Your task to perform on an android device: turn on airplane mode Image 0: 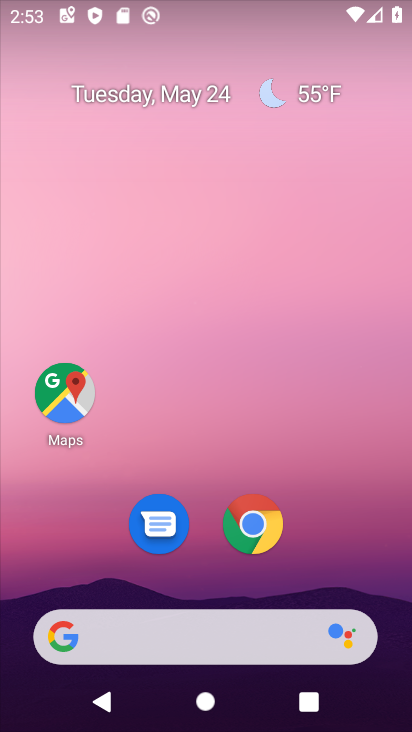
Step 0: drag from (329, 471) to (343, 0)
Your task to perform on an android device: turn on airplane mode Image 1: 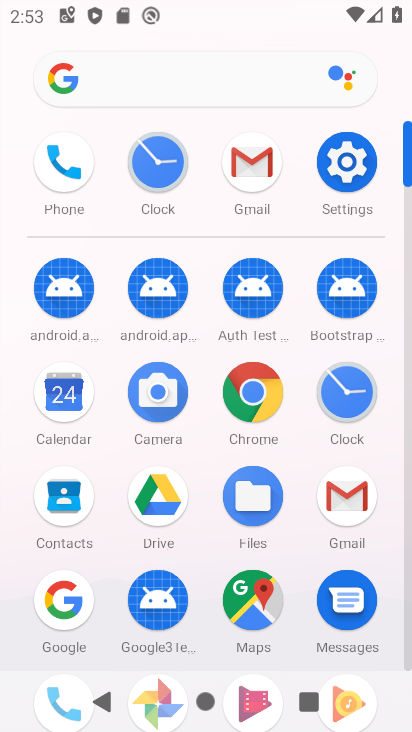
Step 1: drag from (199, 473) to (237, 173)
Your task to perform on an android device: turn on airplane mode Image 2: 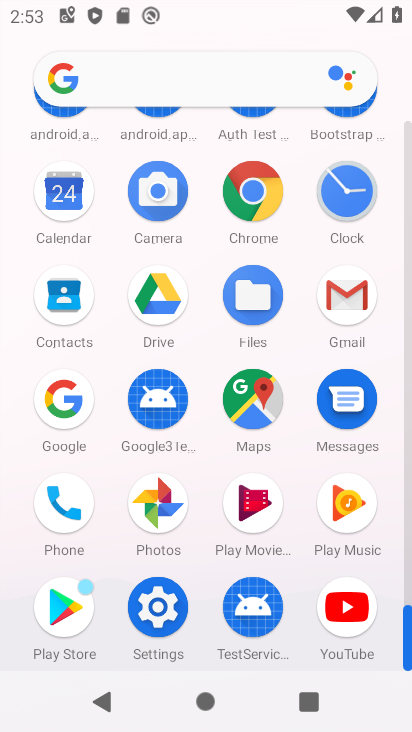
Step 2: drag from (206, 311) to (208, 464)
Your task to perform on an android device: turn on airplane mode Image 3: 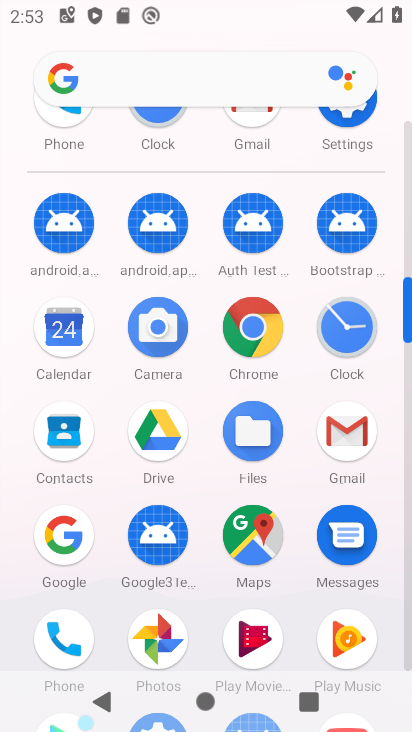
Step 3: drag from (257, 149) to (324, 375)
Your task to perform on an android device: turn on airplane mode Image 4: 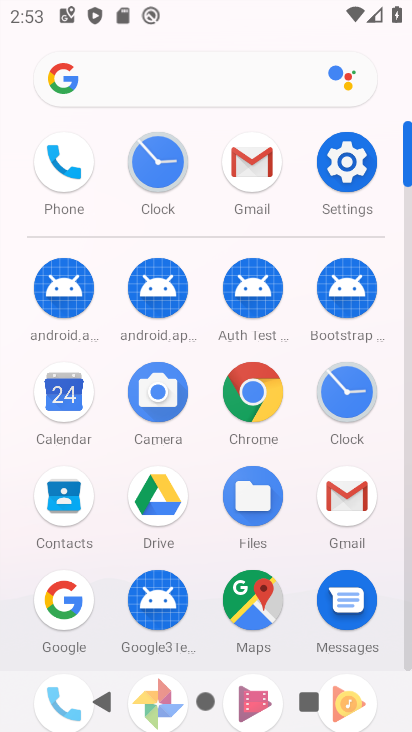
Step 4: click (344, 193)
Your task to perform on an android device: turn on airplane mode Image 5: 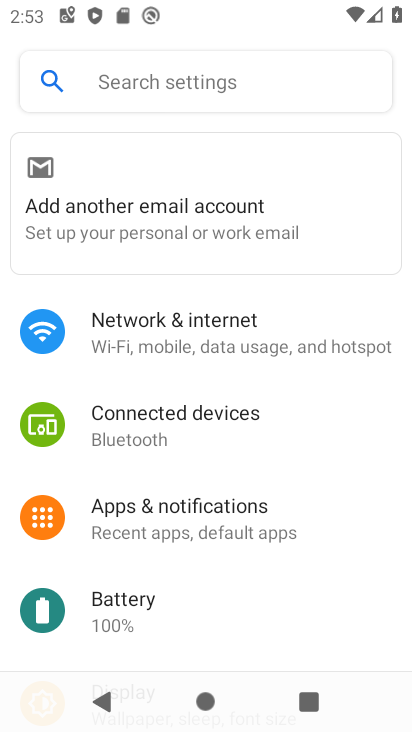
Step 5: click (205, 330)
Your task to perform on an android device: turn on airplane mode Image 6: 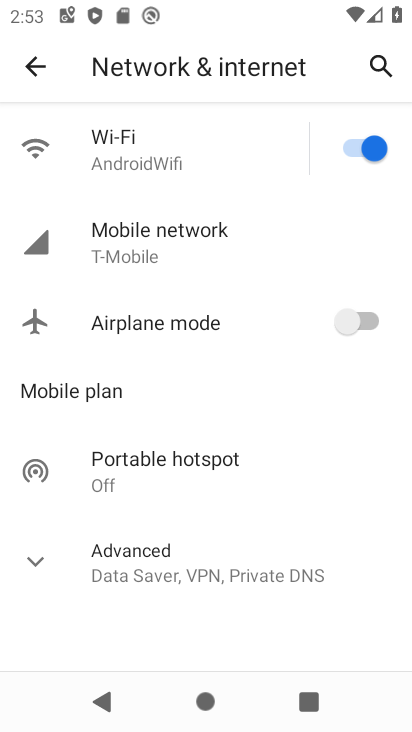
Step 6: click (345, 308)
Your task to perform on an android device: turn on airplane mode Image 7: 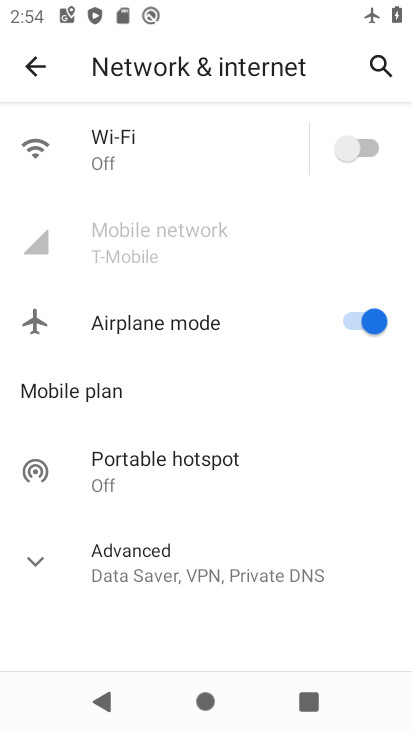
Step 7: task complete